Your task to perform on an android device: change your default location settings in chrome Image 0: 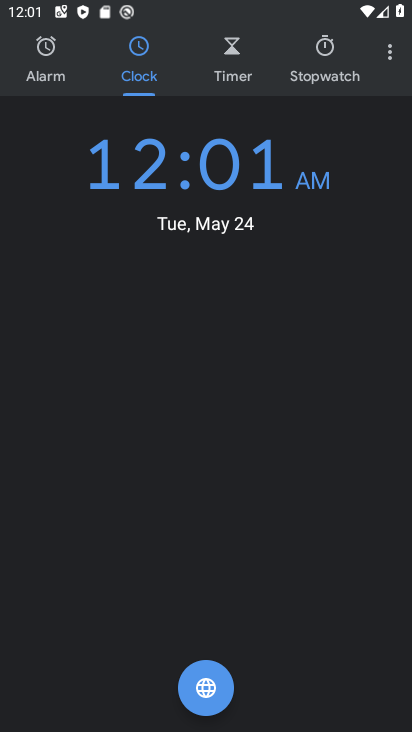
Step 0: press back button
Your task to perform on an android device: change your default location settings in chrome Image 1: 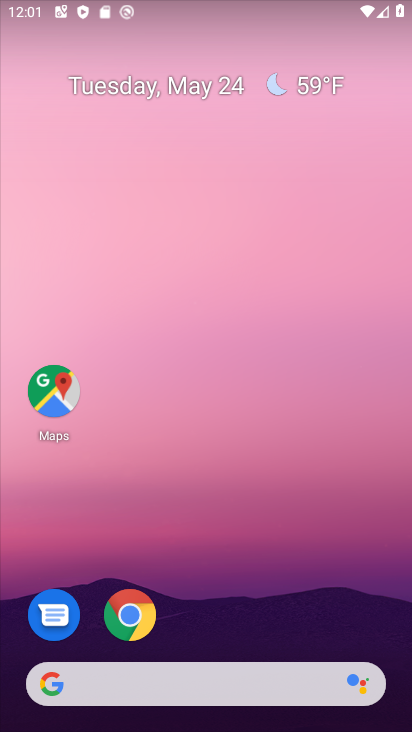
Step 1: drag from (249, 586) to (213, 43)
Your task to perform on an android device: change your default location settings in chrome Image 2: 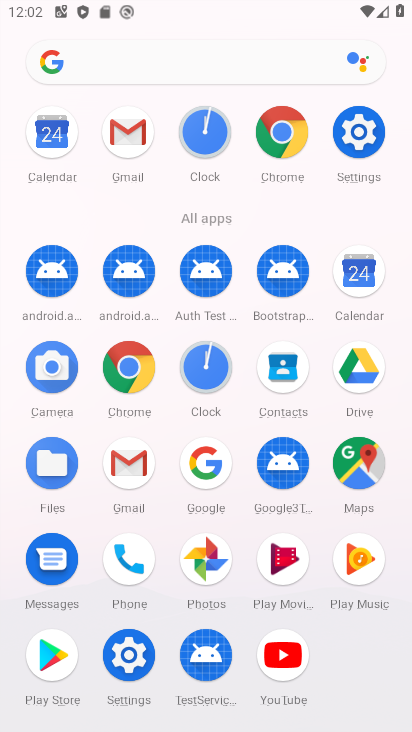
Step 2: click (126, 368)
Your task to perform on an android device: change your default location settings in chrome Image 3: 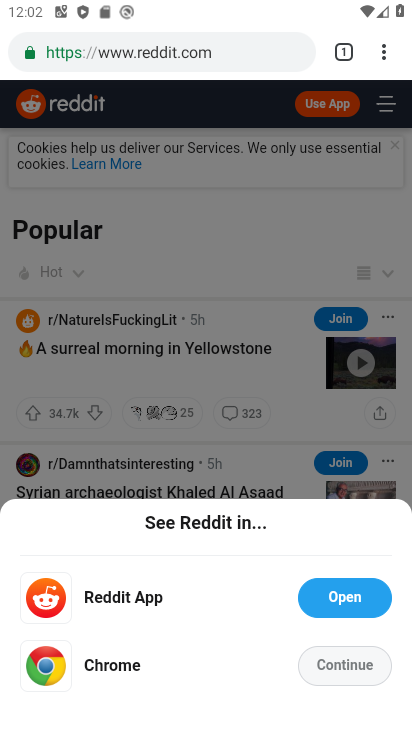
Step 3: drag from (376, 49) to (220, 621)
Your task to perform on an android device: change your default location settings in chrome Image 4: 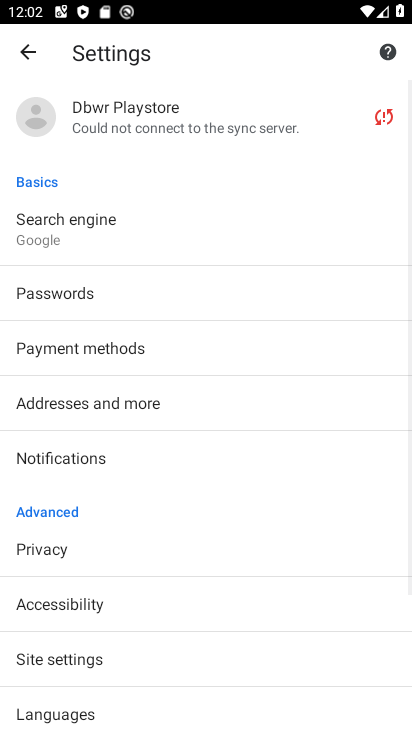
Step 4: drag from (181, 573) to (196, 175)
Your task to perform on an android device: change your default location settings in chrome Image 5: 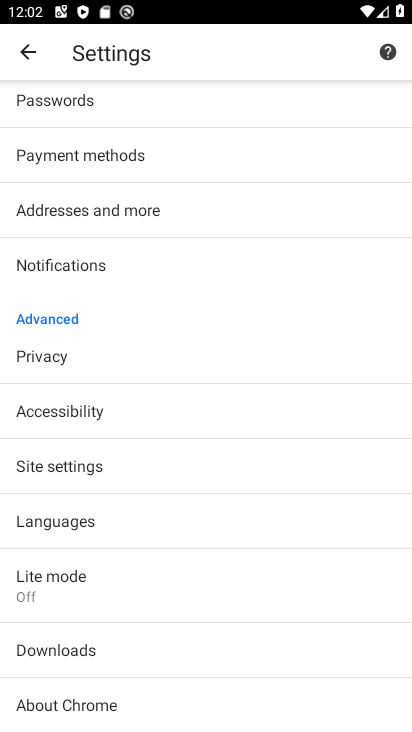
Step 5: click (90, 456)
Your task to perform on an android device: change your default location settings in chrome Image 6: 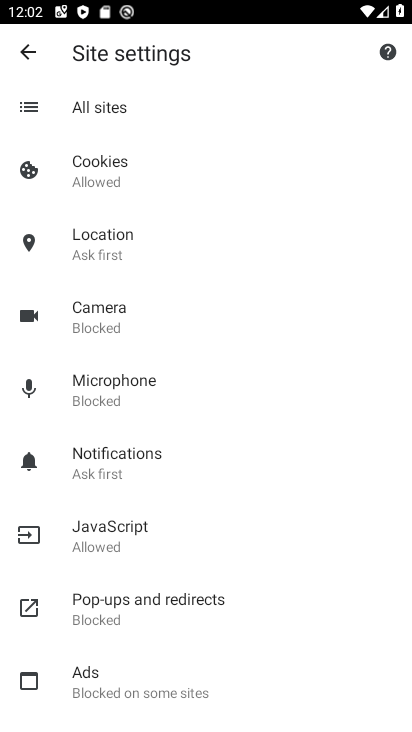
Step 6: click (127, 239)
Your task to perform on an android device: change your default location settings in chrome Image 7: 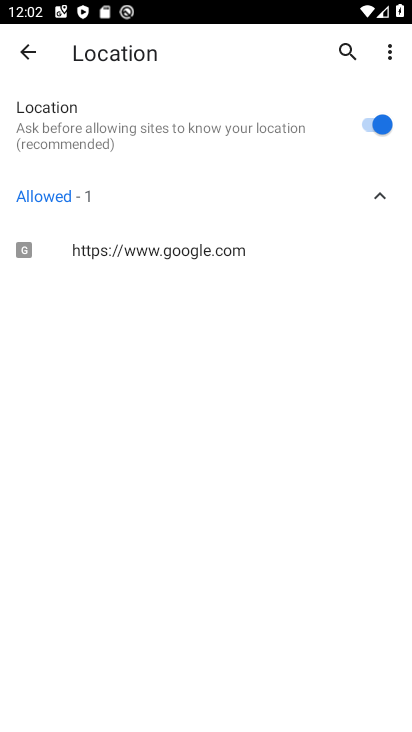
Step 7: task complete